Your task to perform on an android device: turn on showing notifications on the lock screen Image 0: 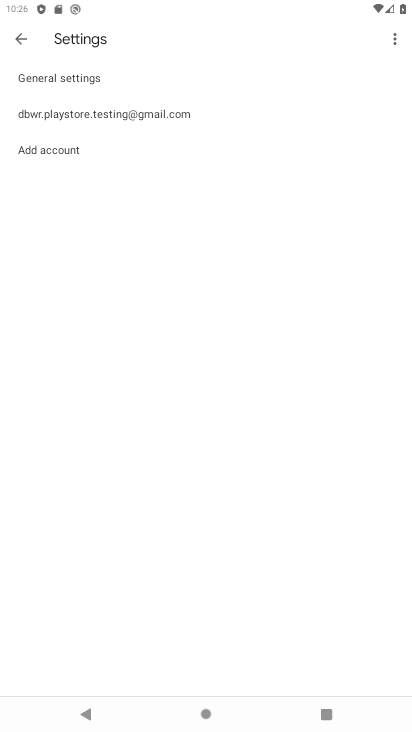
Step 0: press home button
Your task to perform on an android device: turn on showing notifications on the lock screen Image 1: 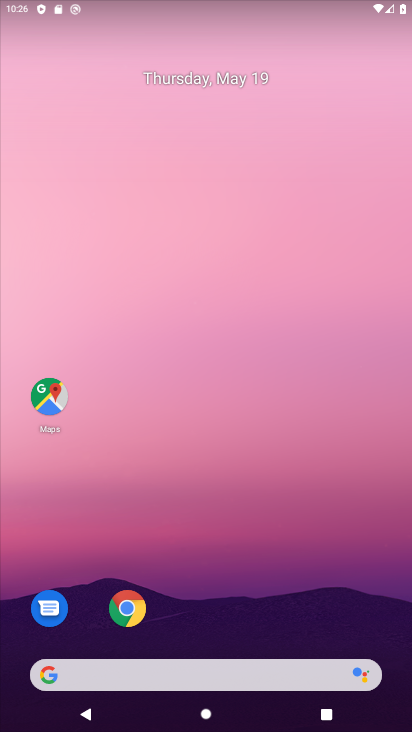
Step 1: drag from (402, 708) to (407, 16)
Your task to perform on an android device: turn on showing notifications on the lock screen Image 2: 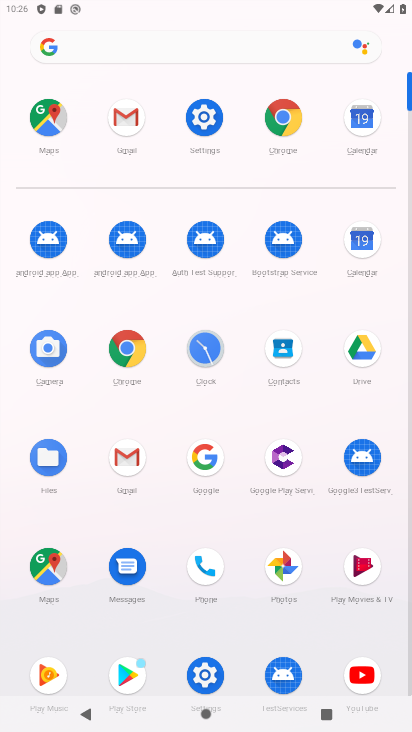
Step 2: click (207, 121)
Your task to perform on an android device: turn on showing notifications on the lock screen Image 3: 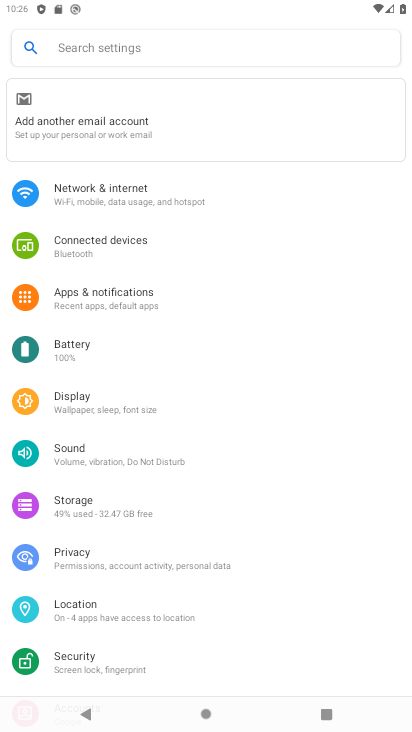
Step 3: click (69, 290)
Your task to perform on an android device: turn on showing notifications on the lock screen Image 4: 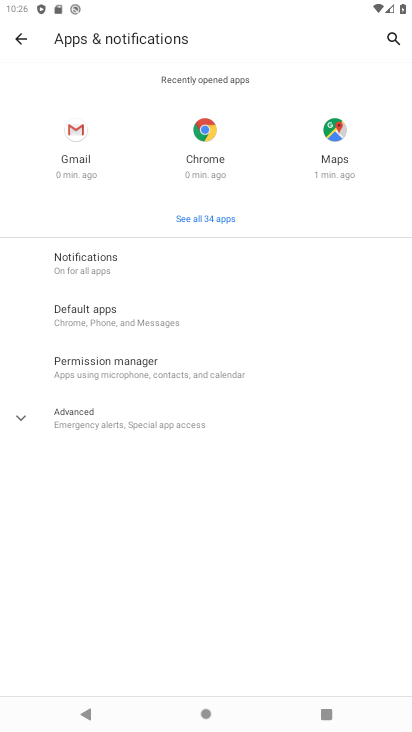
Step 4: click (83, 262)
Your task to perform on an android device: turn on showing notifications on the lock screen Image 5: 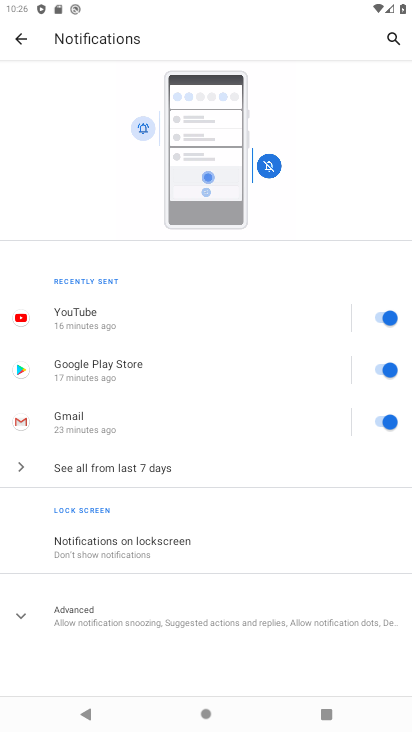
Step 5: drag from (256, 584) to (285, 184)
Your task to perform on an android device: turn on showing notifications on the lock screen Image 6: 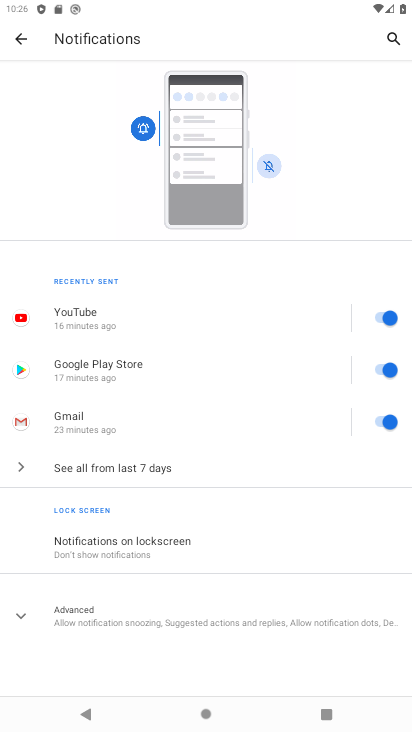
Step 6: drag from (244, 637) to (249, 397)
Your task to perform on an android device: turn on showing notifications on the lock screen Image 7: 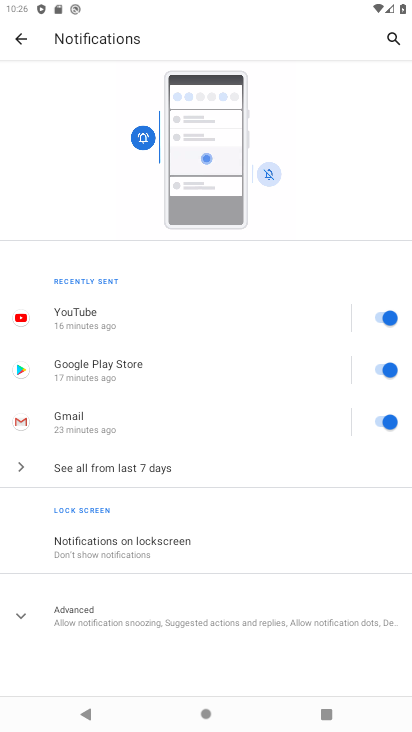
Step 7: click (126, 544)
Your task to perform on an android device: turn on showing notifications on the lock screen Image 8: 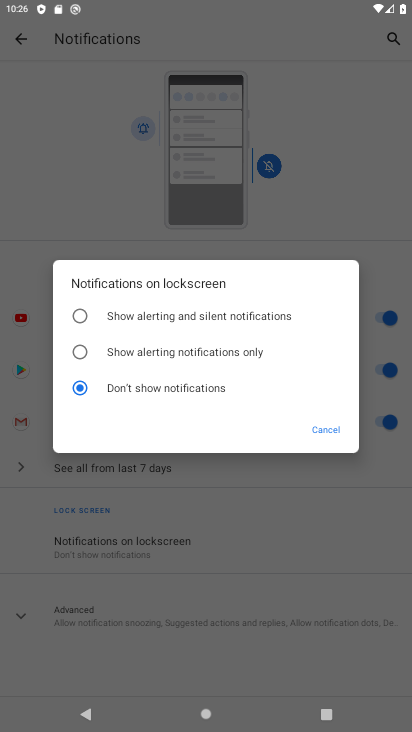
Step 8: click (74, 312)
Your task to perform on an android device: turn on showing notifications on the lock screen Image 9: 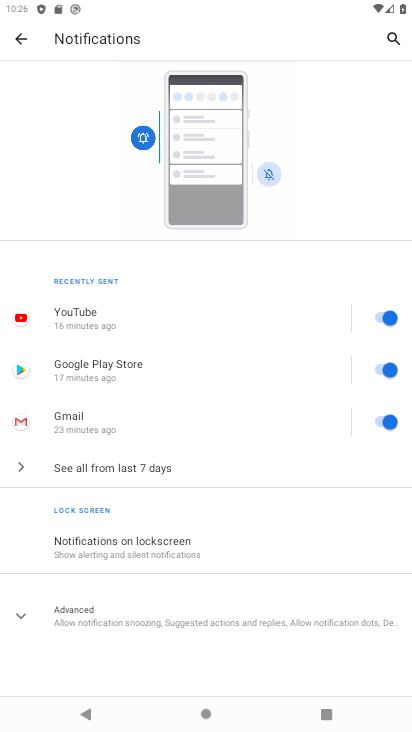
Step 9: task complete